Your task to perform on an android device: set an alarm Image 0: 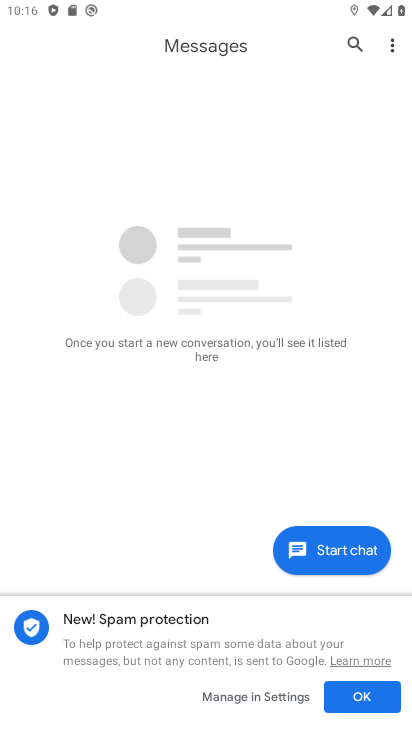
Step 0: press back button
Your task to perform on an android device: set an alarm Image 1: 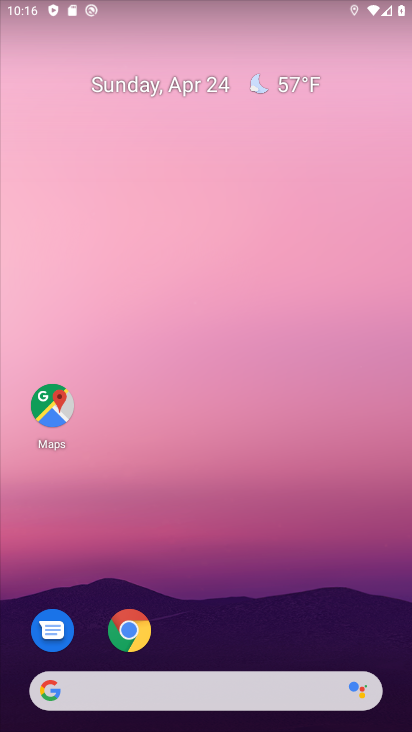
Step 1: drag from (230, 573) to (217, 2)
Your task to perform on an android device: set an alarm Image 2: 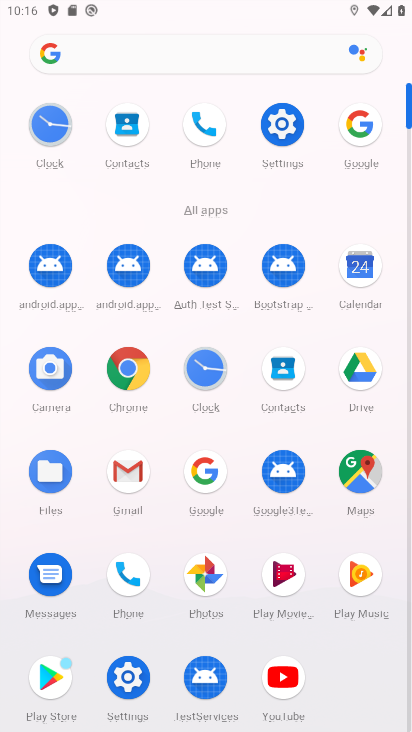
Step 2: click (49, 122)
Your task to perform on an android device: set an alarm Image 3: 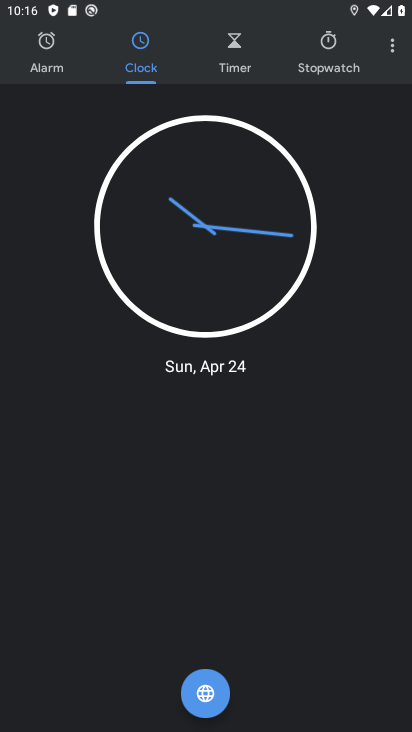
Step 3: click (51, 51)
Your task to perform on an android device: set an alarm Image 4: 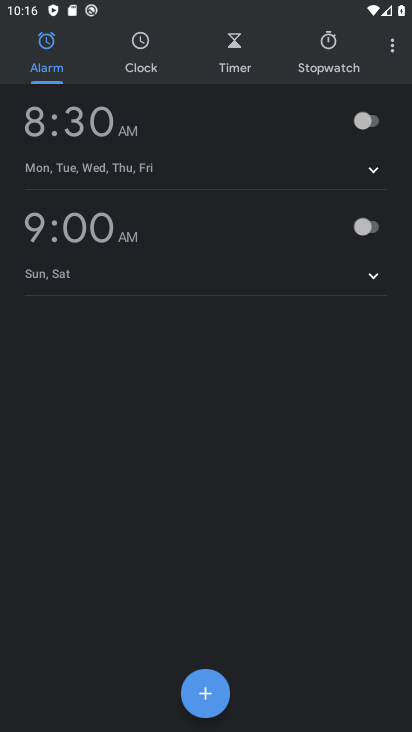
Step 4: click (208, 693)
Your task to perform on an android device: set an alarm Image 5: 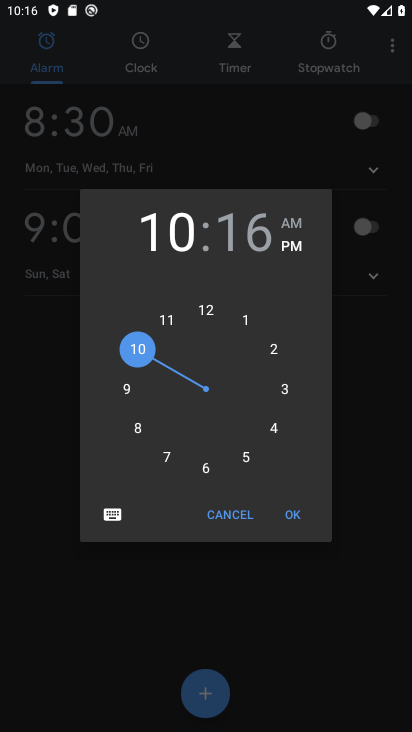
Step 5: click (222, 470)
Your task to perform on an android device: set an alarm Image 6: 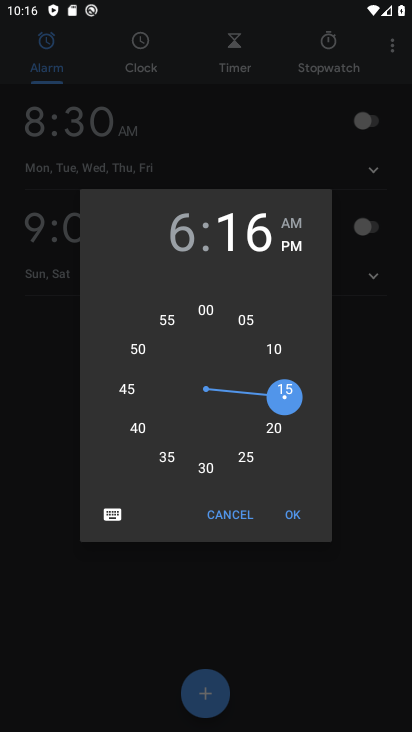
Step 6: click (145, 349)
Your task to perform on an android device: set an alarm Image 7: 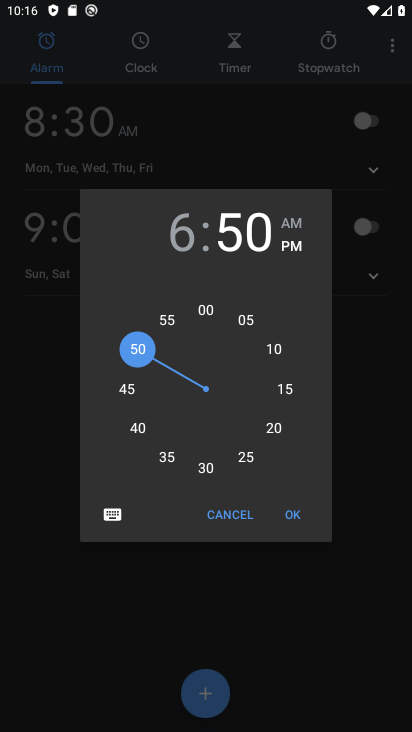
Step 7: click (296, 219)
Your task to perform on an android device: set an alarm Image 8: 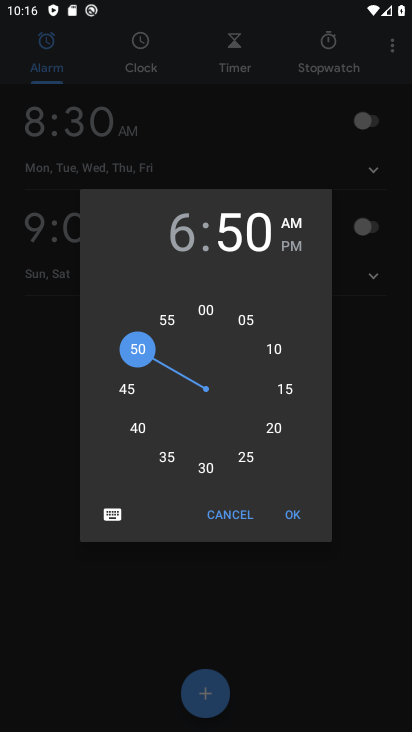
Step 8: click (296, 507)
Your task to perform on an android device: set an alarm Image 9: 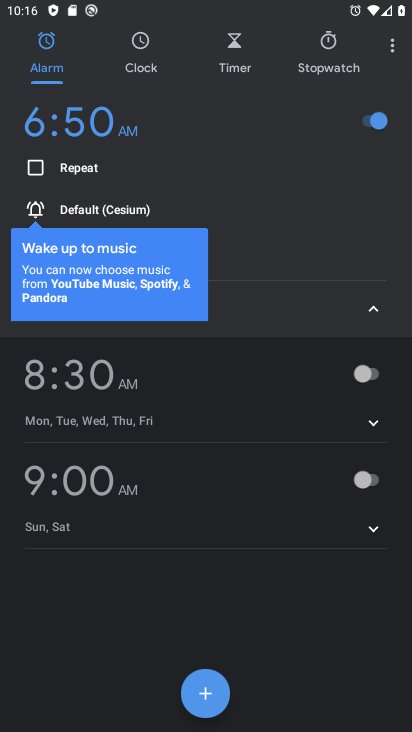
Step 9: click (380, 318)
Your task to perform on an android device: set an alarm Image 10: 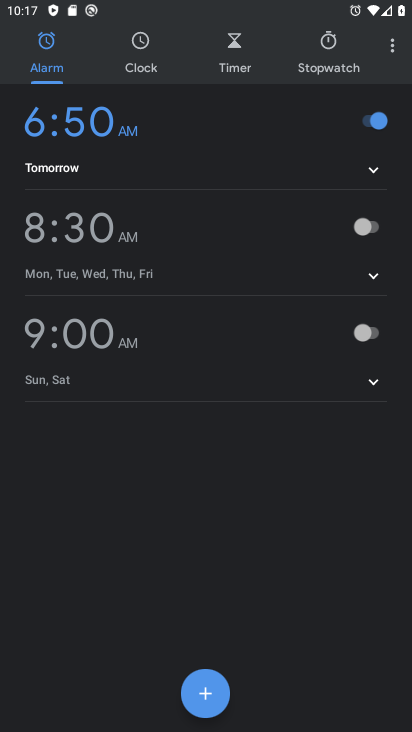
Step 10: task complete